Your task to perform on an android device: find which apps use the phone's location Image 0: 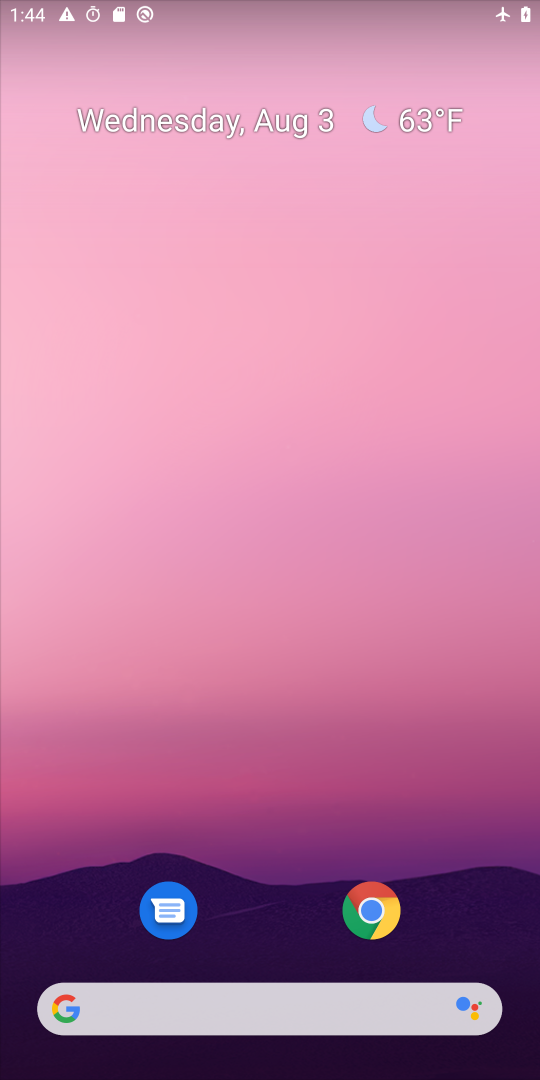
Step 0: drag from (314, 782) to (313, 17)
Your task to perform on an android device: find which apps use the phone's location Image 1: 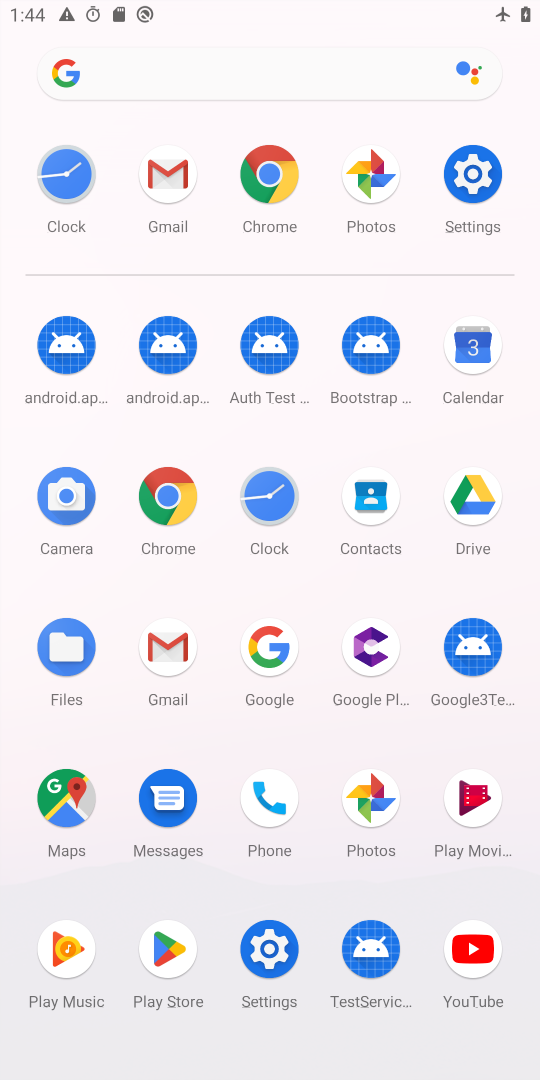
Step 1: click (471, 189)
Your task to perform on an android device: find which apps use the phone's location Image 2: 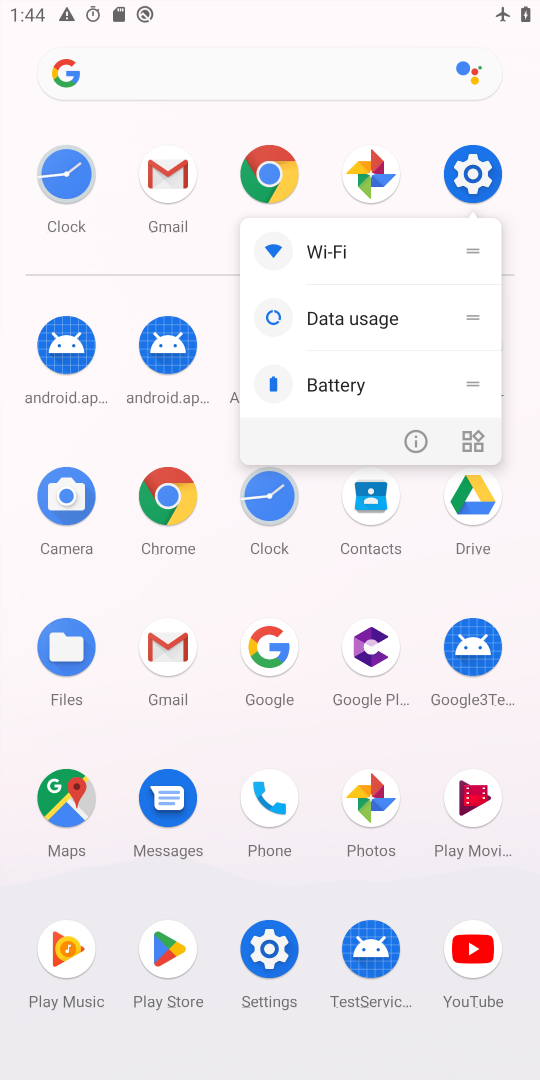
Step 2: click (471, 189)
Your task to perform on an android device: find which apps use the phone's location Image 3: 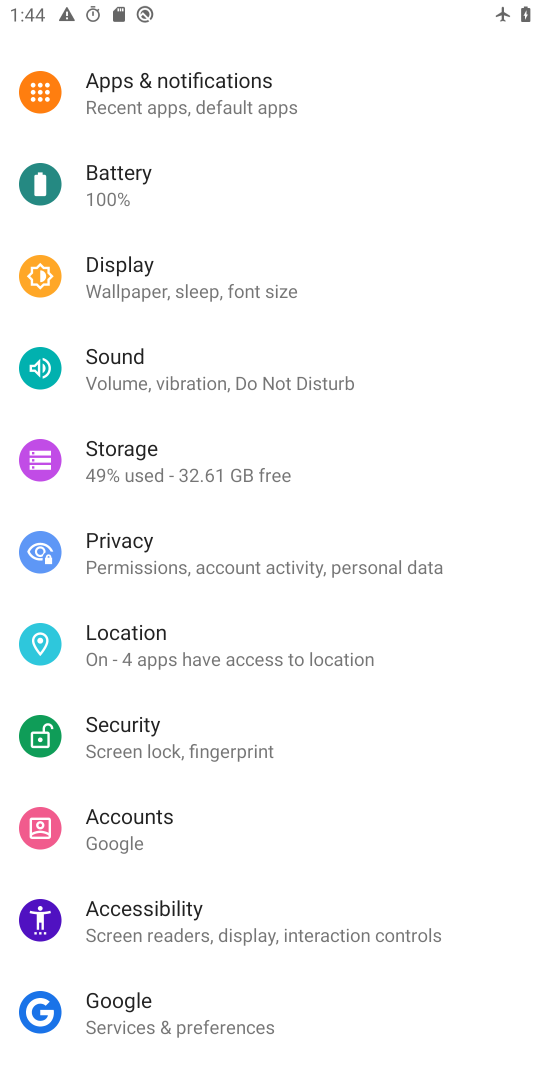
Step 3: click (196, 648)
Your task to perform on an android device: find which apps use the phone's location Image 4: 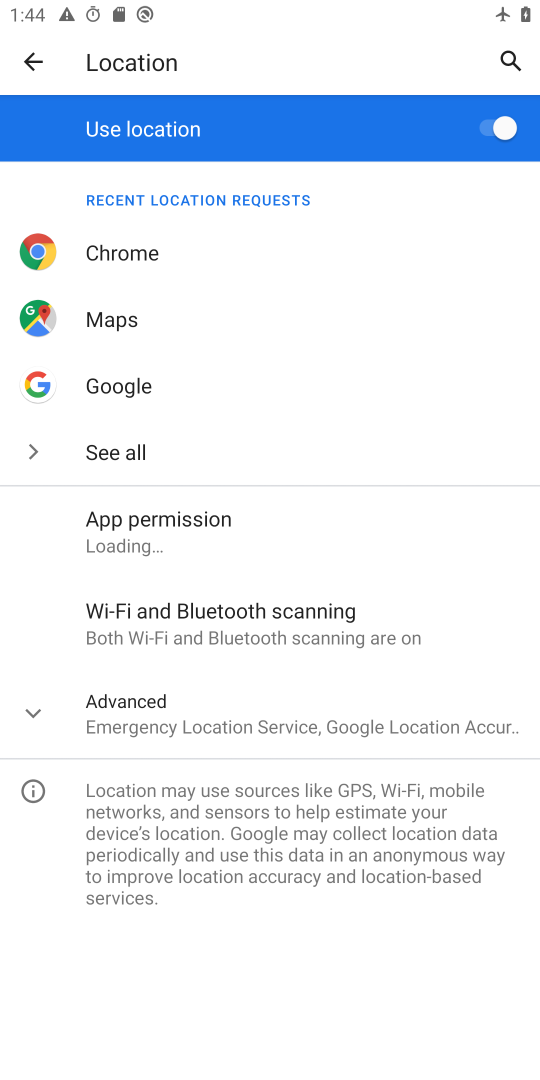
Step 4: click (220, 524)
Your task to perform on an android device: find which apps use the phone's location Image 5: 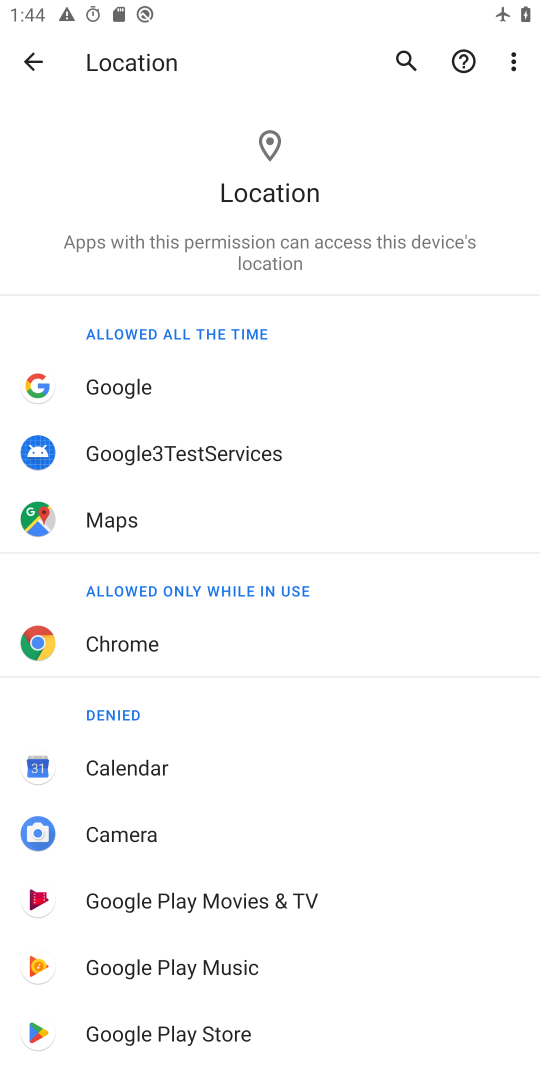
Step 5: task complete